Your task to perform on an android device: check storage Image 0: 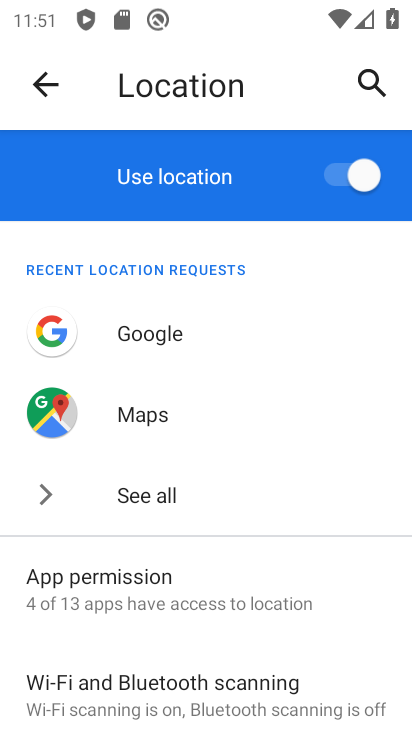
Step 0: press home button
Your task to perform on an android device: check storage Image 1: 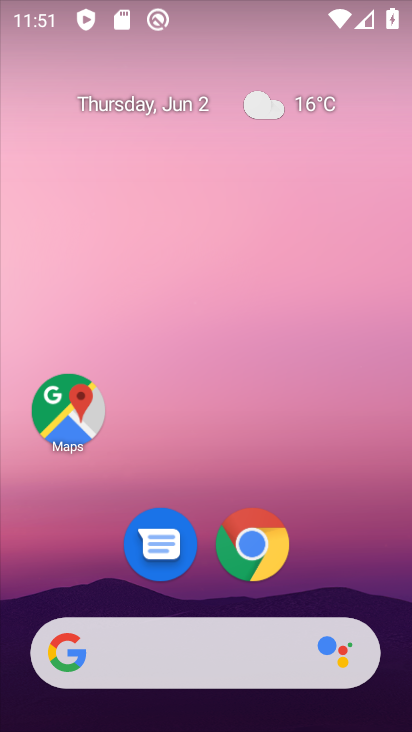
Step 1: drag from (384, 553) to (356, 238)
Your task to perform on an android device: check storage Image 2: 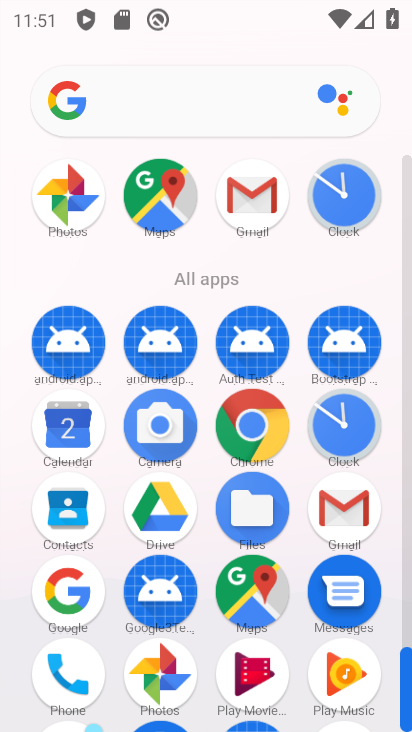
Step 2: drag from (228, 604) to (231, 297)
Your task to perform on an android device: check storage Image 3: 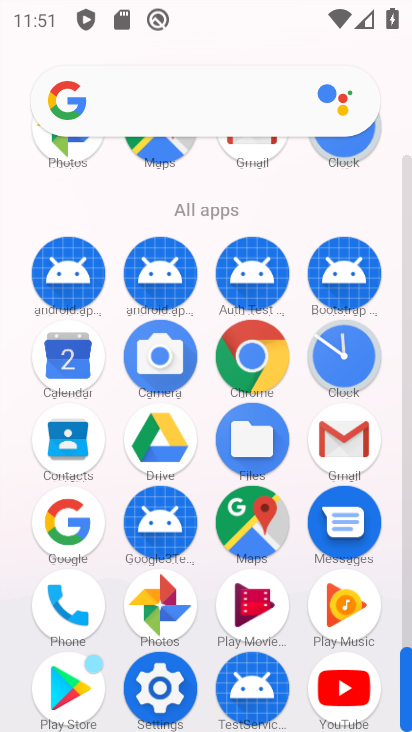
Step 3: click (153, 689)
Your task to perform on an android device: check storage Image 4: 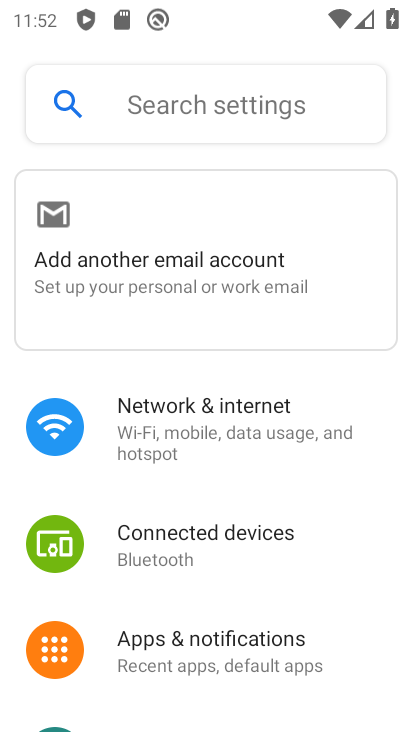
Step 4: drag from (161, 683) to (185, 330)
Your task to perform on an android device: check storage Image 5: 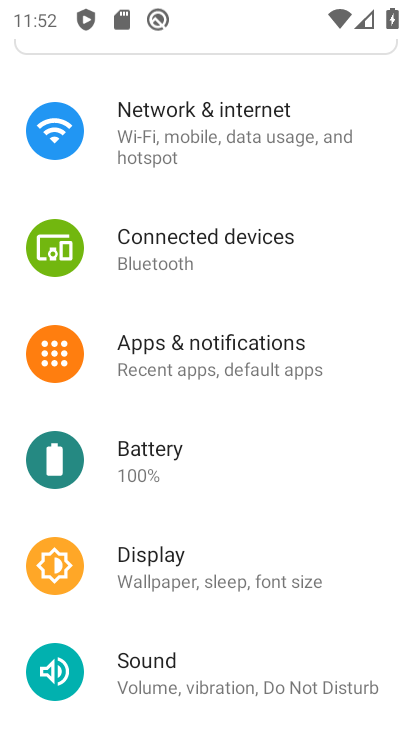
Step 5: drag from (181, 591) to (195, 332)
Your task to perform on an android device: check storage Image 6: 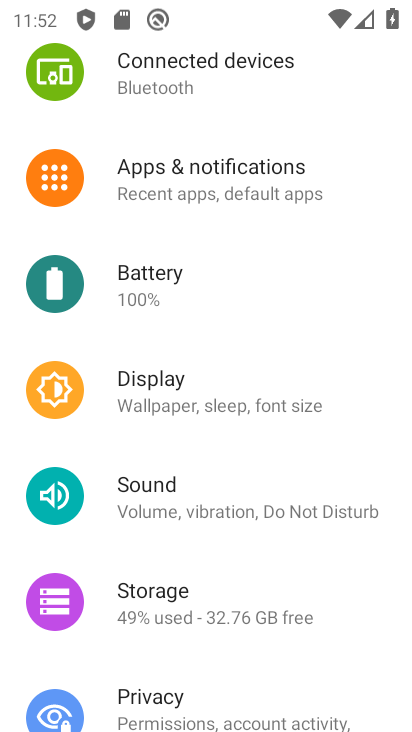
Step 6: click (185, 602)
Your task to perform on an android device: check storage Image 7: 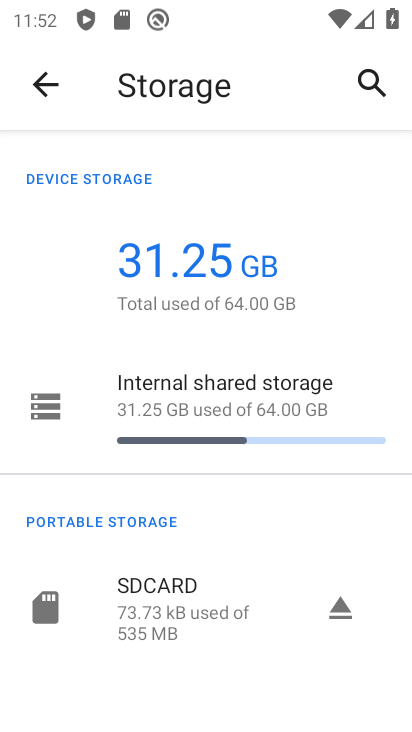
Step 7: click (33, 420)
Your task to perform on an android device: check storage Image 8: 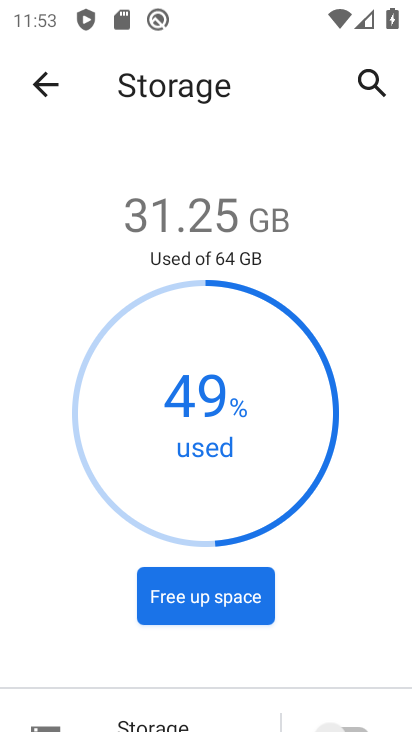
Step 8: drag from (84, 674) to (85, 418)
Your task to perform on an android device: check storage Image 9: 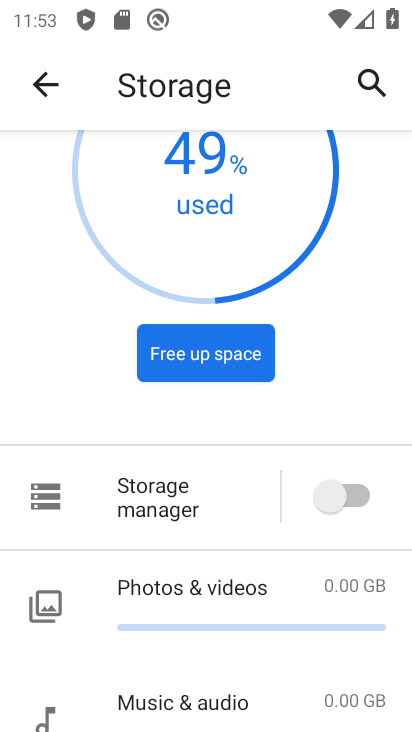
Step 9: click (44, 512)
Your task to perform on an android device: check storage Image 10: 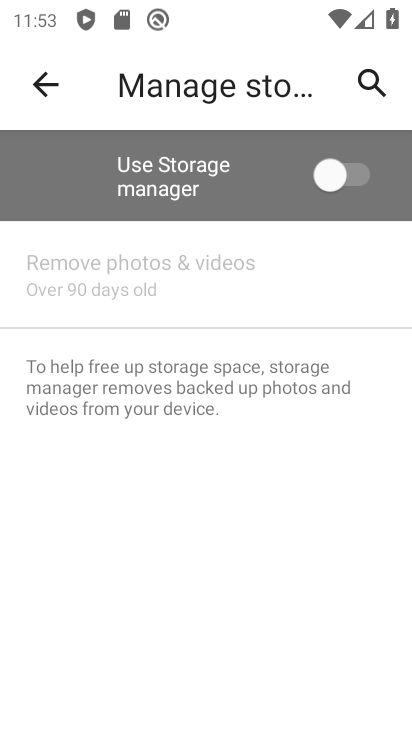
Step 10: task complete